Your task to perform on an android device: open sync settings in chrome Image 0: 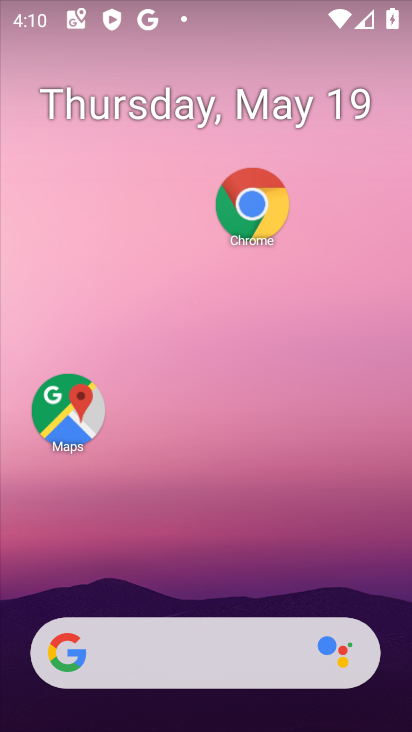
Step 0: click (252, 204)
Your task to perform on an android device: open sync settings in chrome Image 1: 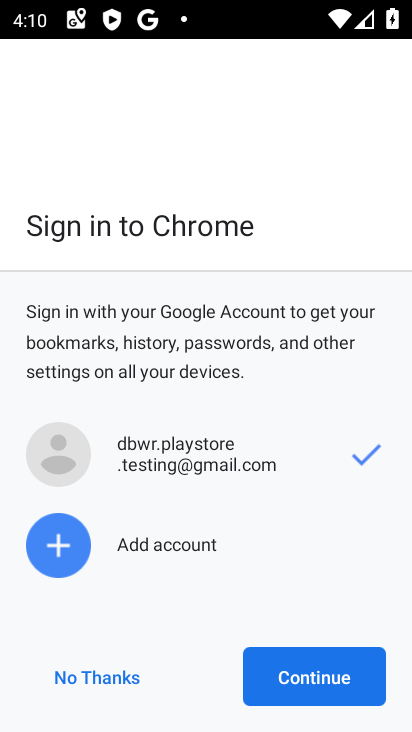
Step 1: click (308, 685)
Your task to perform on an android device: open sync settings in chrome Image 2: 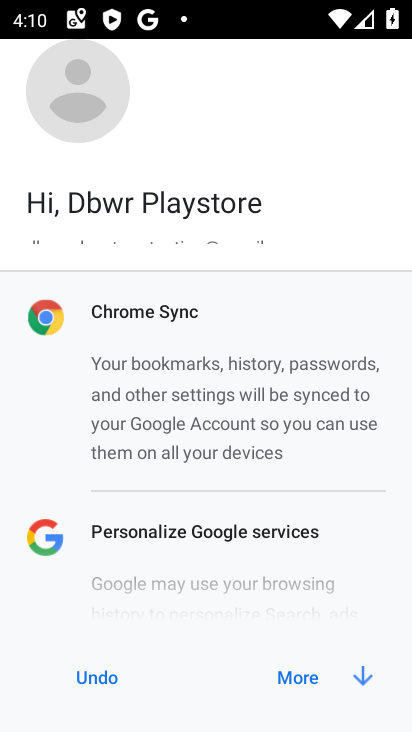
Step 2: click (302, 674)
Your task to perform on an android device: open sync settings in chrome Image 3: 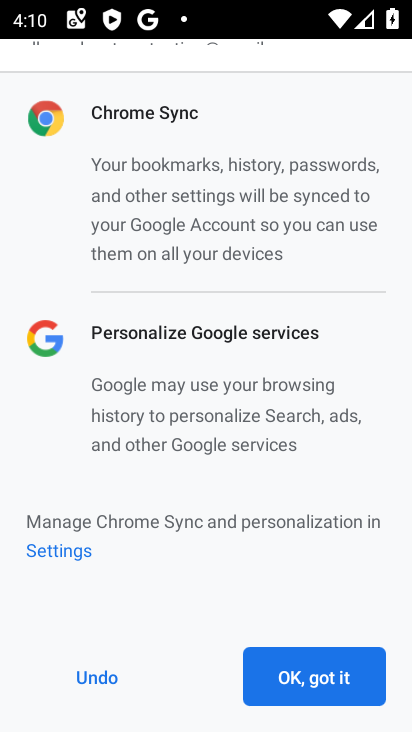
Step 3: click (302, 674)
Your task to perform on an android device: open sync settings in chrome Image 4: 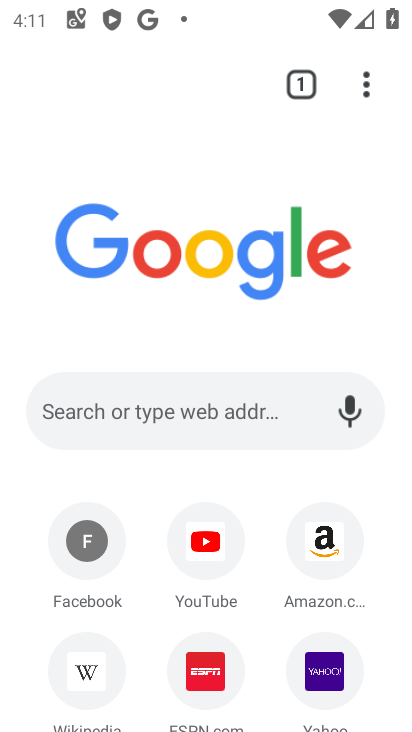
Step 4: click (368, 87)
Your task to perform on an android device: open sync settings in chrome Image 5: 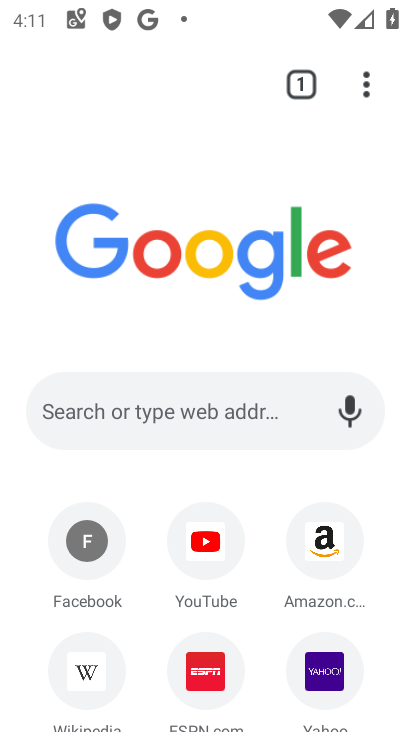
Step 5: click (368, 71)
Your task to perform on an android device: open sync settings in chrome Image 6: 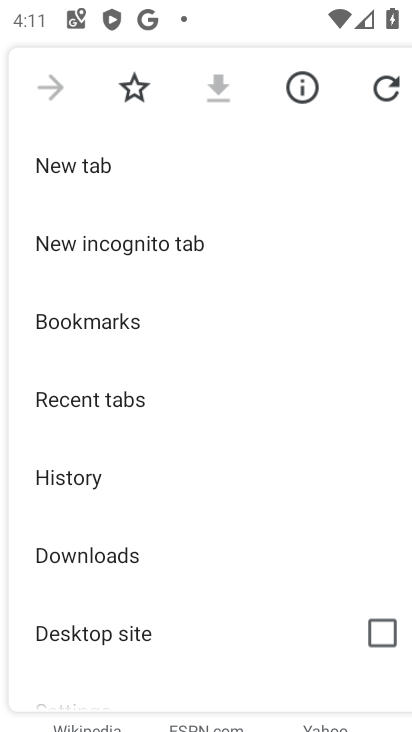
Step 6: drag from (161, 310) to (170, 203)
Your task to perform on an android device: open sync settings in chrome Image 7: 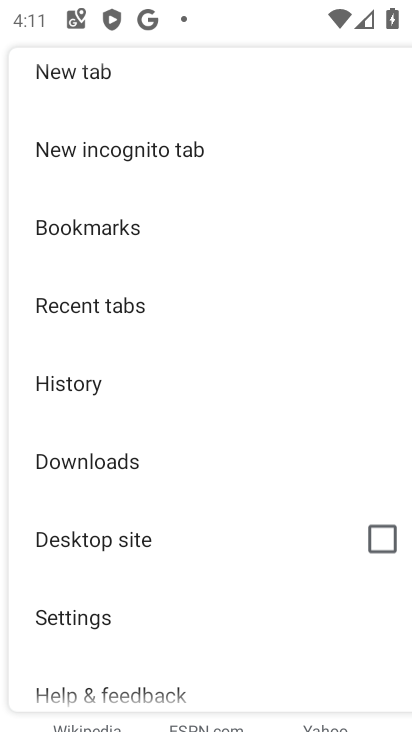
Step 7: click (93, 619)
Your task to perform on an android device: open sync settings in chrome Image 8: 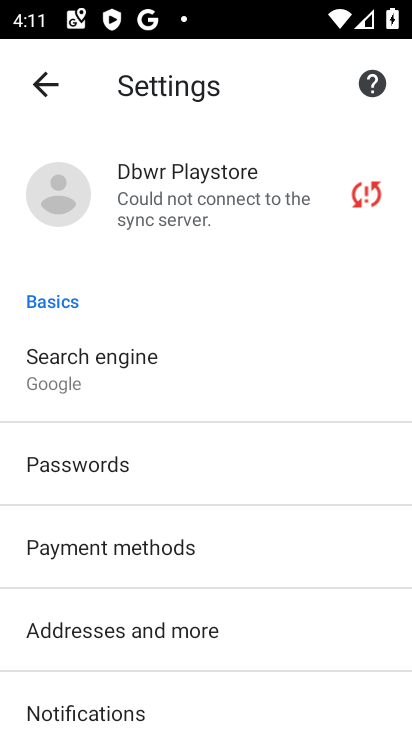
Step 8: click (93, 619)
Your task to perform on an android device: open sync settings in chrome Image 9: 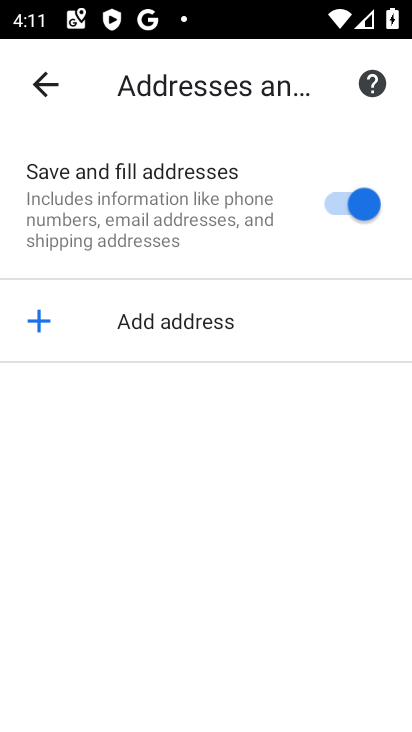
Step 9: click (50, 80)
Your task to perform on an android device: open sync settings in chrome Image 10: 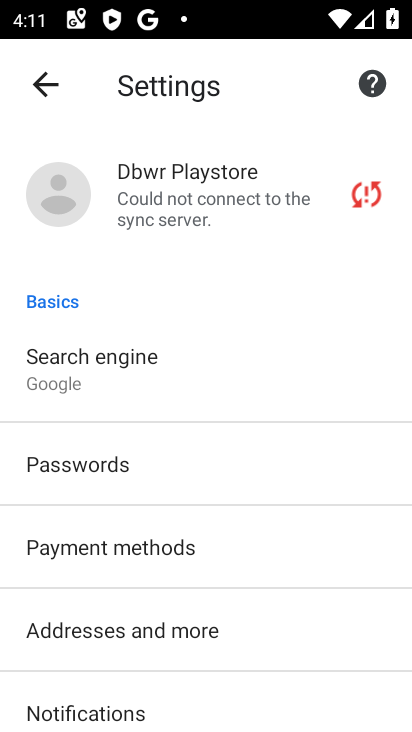
Step 10: click (160, 168)
Your task to perform on an android device: open sync settings in chrome Image 11: 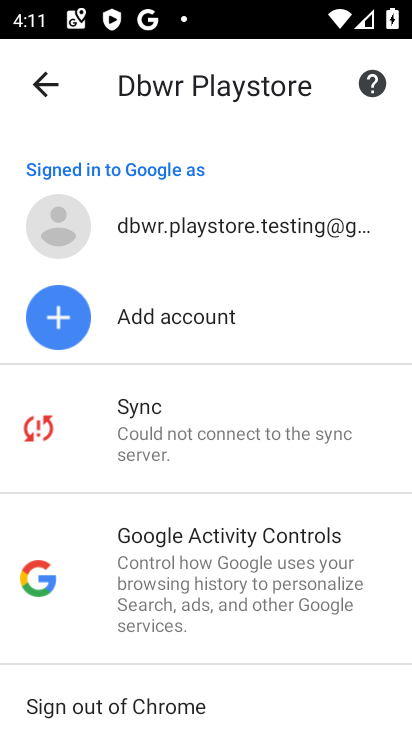
Step 11: click (161, 411)
Your task to perform on an android device: open sync settings in chrome Image 12: 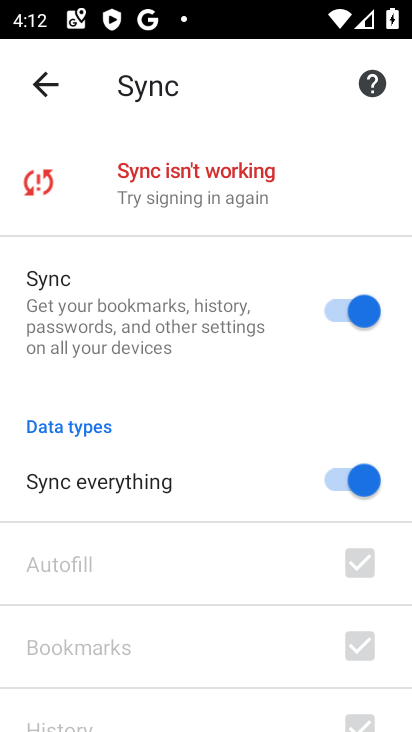
Step 12: click (161, 178)
Your task to perform on an android device: open sync settings in chrome Image 13: 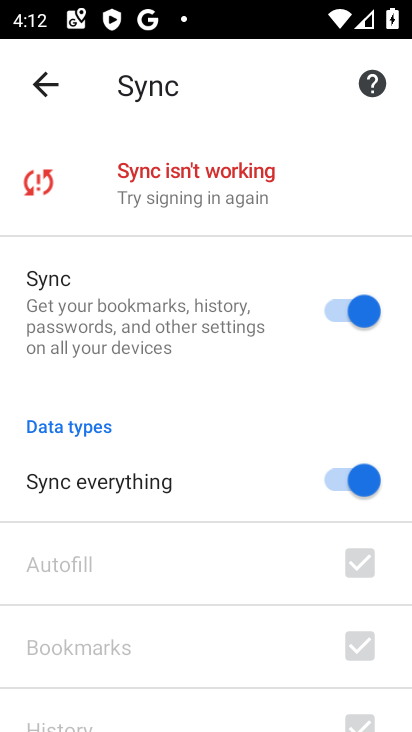
Step 13: task complete